Your task to perform on an android device: When is my next appointment? Image 0: 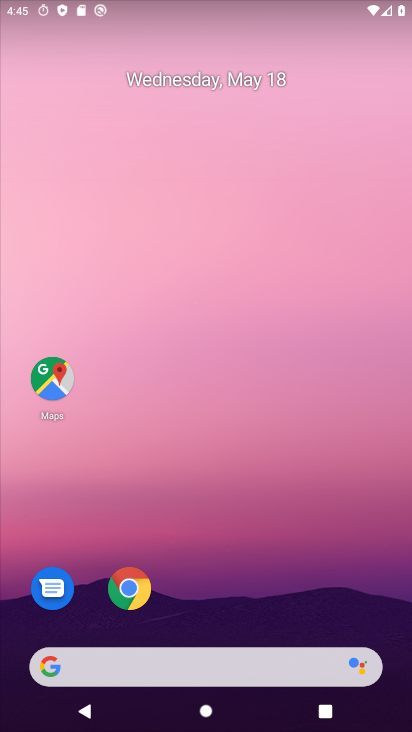
Step 0: drag from (245, 569) to (297, 66)
Your task to perform on an android device: When is my next appointment? Image 1: 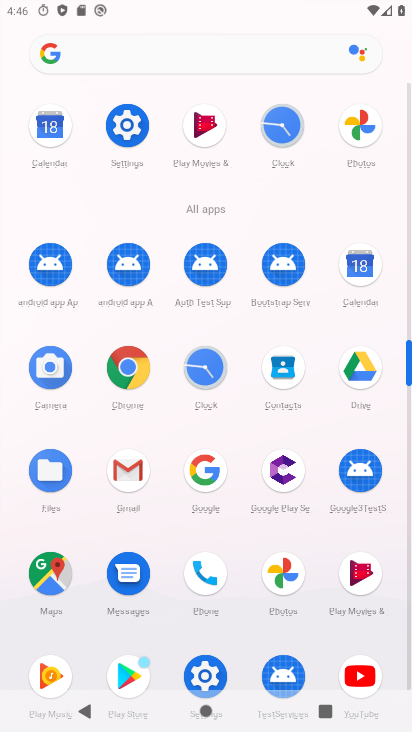
Step 1: click (356, 262)
Your task to perform on an android device: When is my next appointment? Image 2: 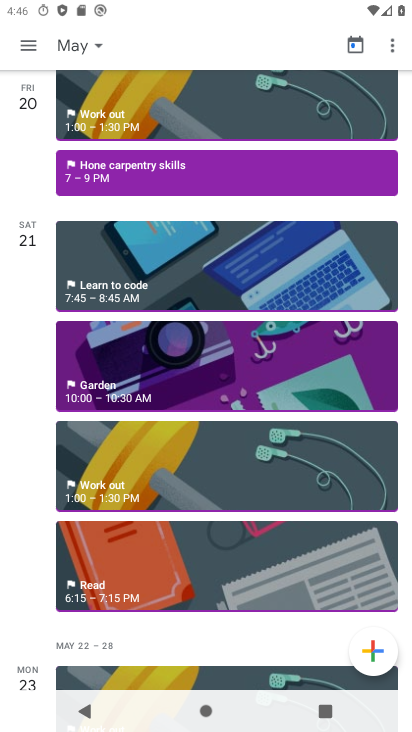
Step 2: click (26, 37)
Your task to perform on an android device: When is my next appointment? Image 3: 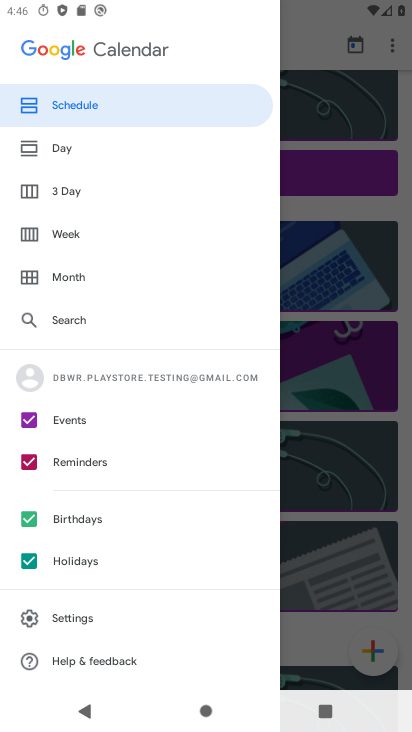
Step 3: click (87, 104)
Your task to perform on an android device: When is my next appointment? Image 4: 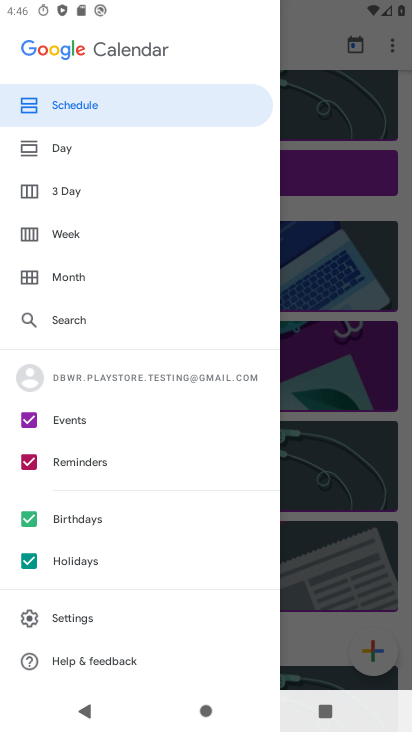
Step 4: click (99, 102)
Your task to perform on an android device: When is my next appointment? Image 5: 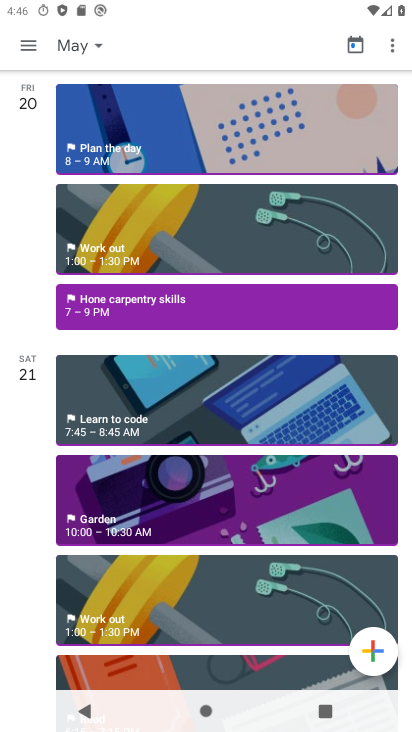
Step 5: task complete